Your task to perform on an android device: turn off improve location accuracy Image 0: 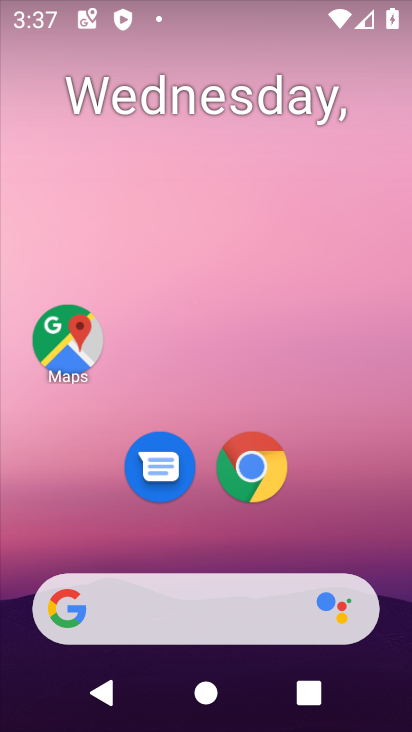
Step 0: drag from (398, 604) to (331, 240)
Your task to perform on an android device: turn off improve location accuracy Image 1: 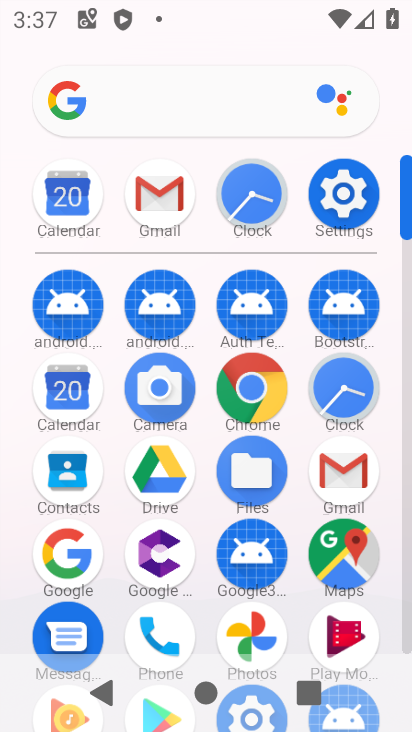
Step 1: click (409, 632)
Your task to perform on an android device: turn off improve location accuracy Image 2: 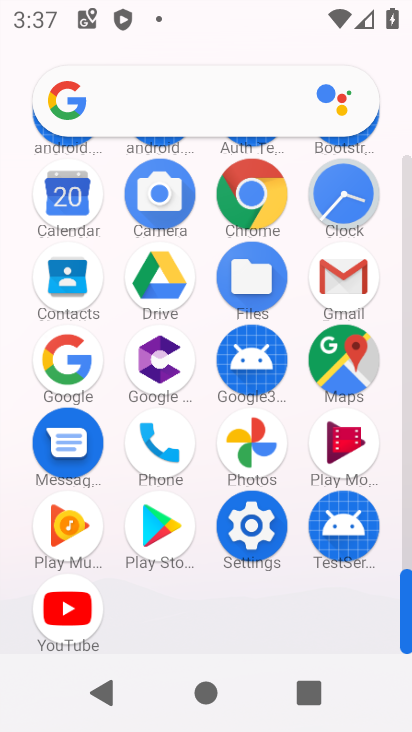
Step 2: click (246, 525)
Your task to perform on an android device: turn off improve location accuracy Image 3: 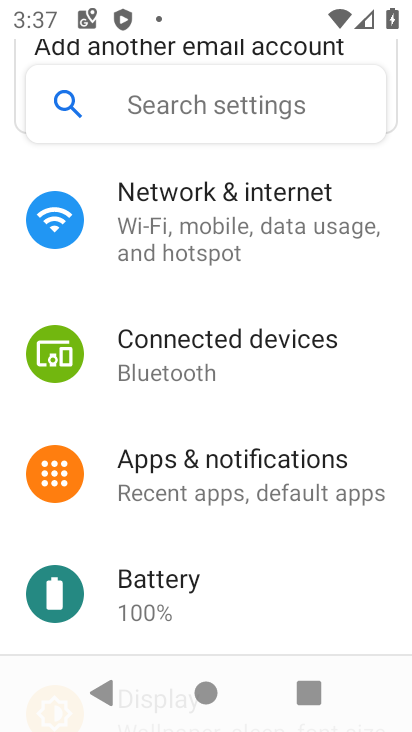
Step 3: drag from (307, 565) to (381, 213)
Your task to perform on an android device: turn off improve location accuracy Image 4: 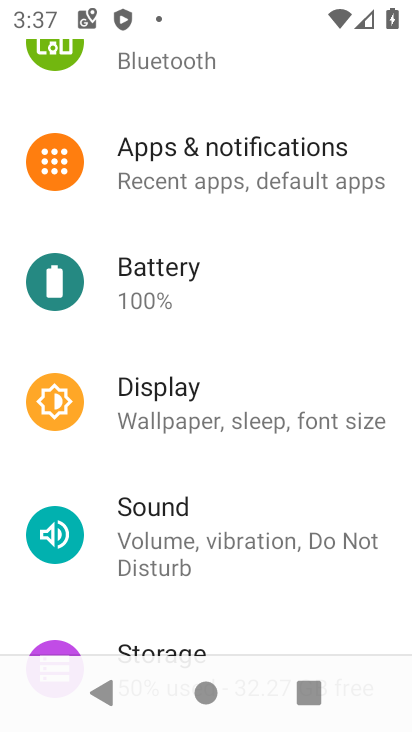
Step 4: drag from (328, 499) to (375, 212)
Your task to perform on an android device: turn off improve location accuracy Image 5: 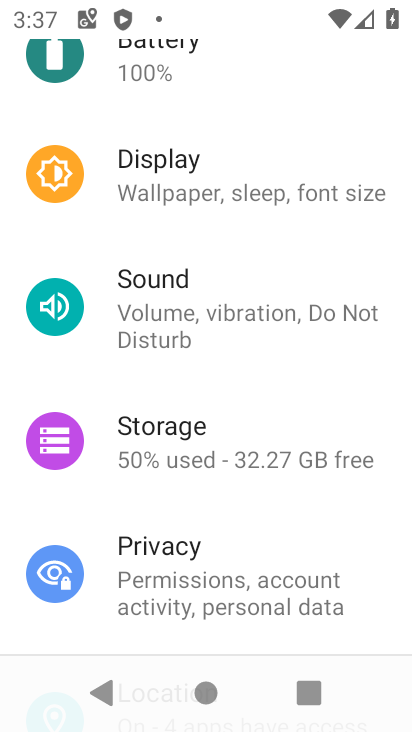
Step 5: drag from (324, 528) to (335, 173)
Your task to perform on an android device: turn off improve location accuracy Image 6: 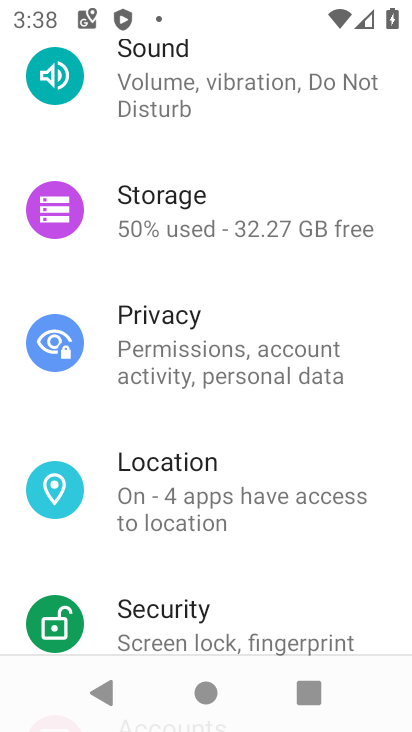
Step 6: click (171, 493)
Your task to perform on an android device: turn off improve location accuracy Image 7: 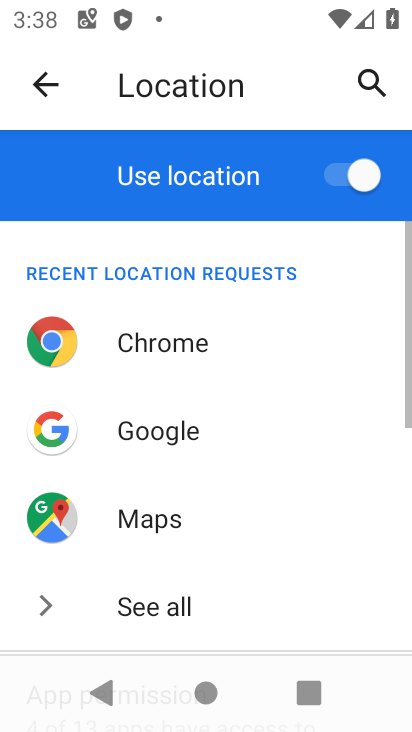
Step 7: drag from (285, 591) to (333, 289)
Your task to perform on an android device: turn off improve location accuracy Image 8: 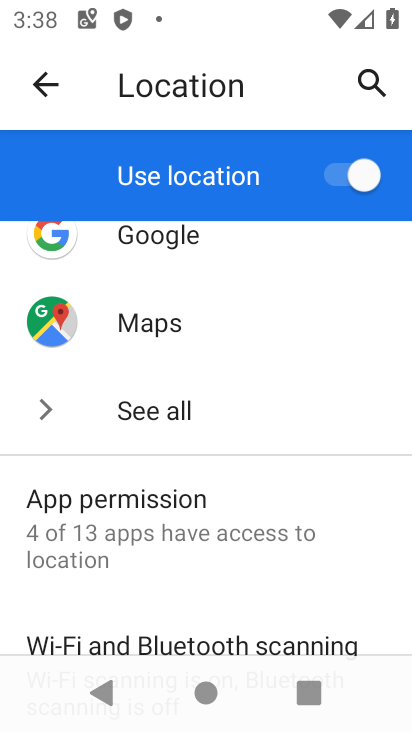
Step 8: drag from (275, 578) to (315, 240)
Your task to perform on an android device: turn off improve location accuracy Image 9: 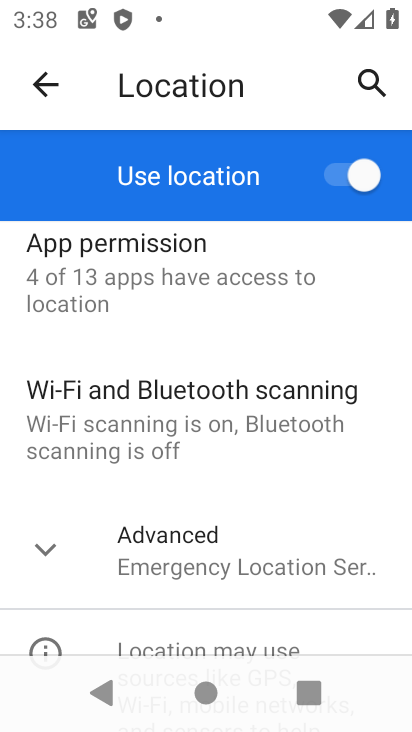
Step 9: click (33, 543)
Your task to perform on an android device: turn off improve location accuracy Image 10: 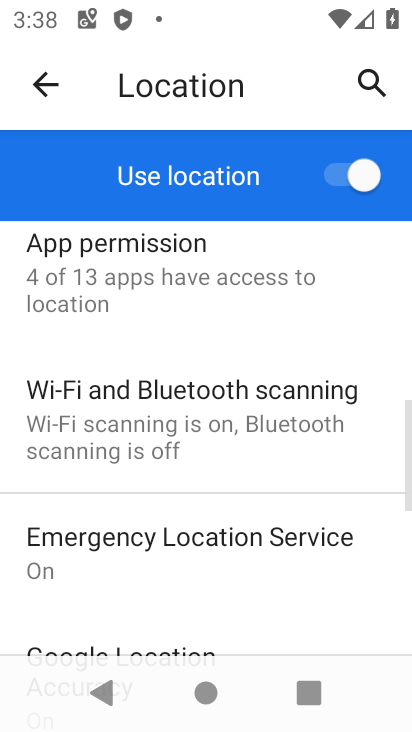
Step 10: drag from (343, 598) to (334, 198)
Your task to perform on an android device: turn off improve location accuracy Image 11: 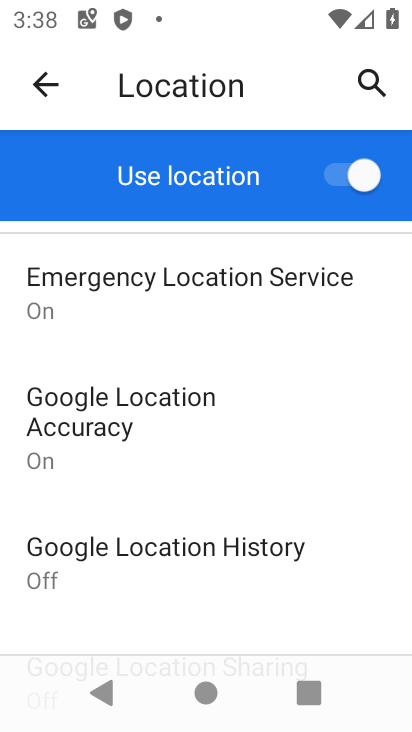
Step 11: click (76, 441)
Your task to perform on an android device: turn off improve location accuracy Image 12: 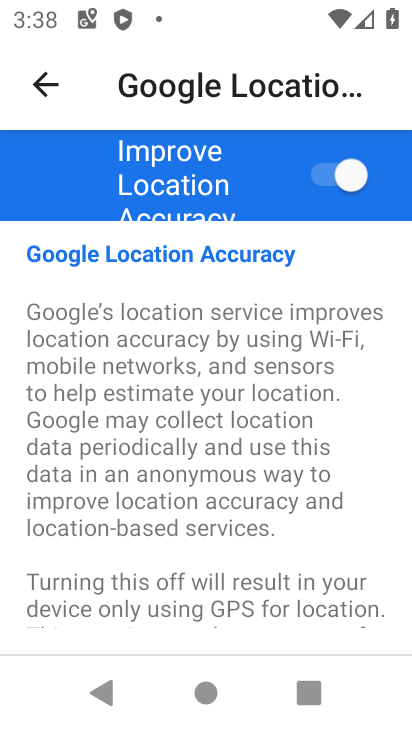
Step 12: click (320, 173)
Your task to perform on an android device: turn off improve location accuracy Image 13: 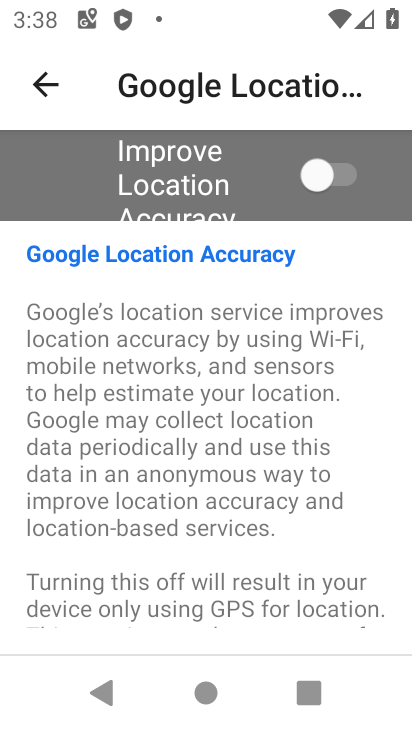
Step 13: task complete